Your task to perform on an android device: toggle sleep mode Image 0: 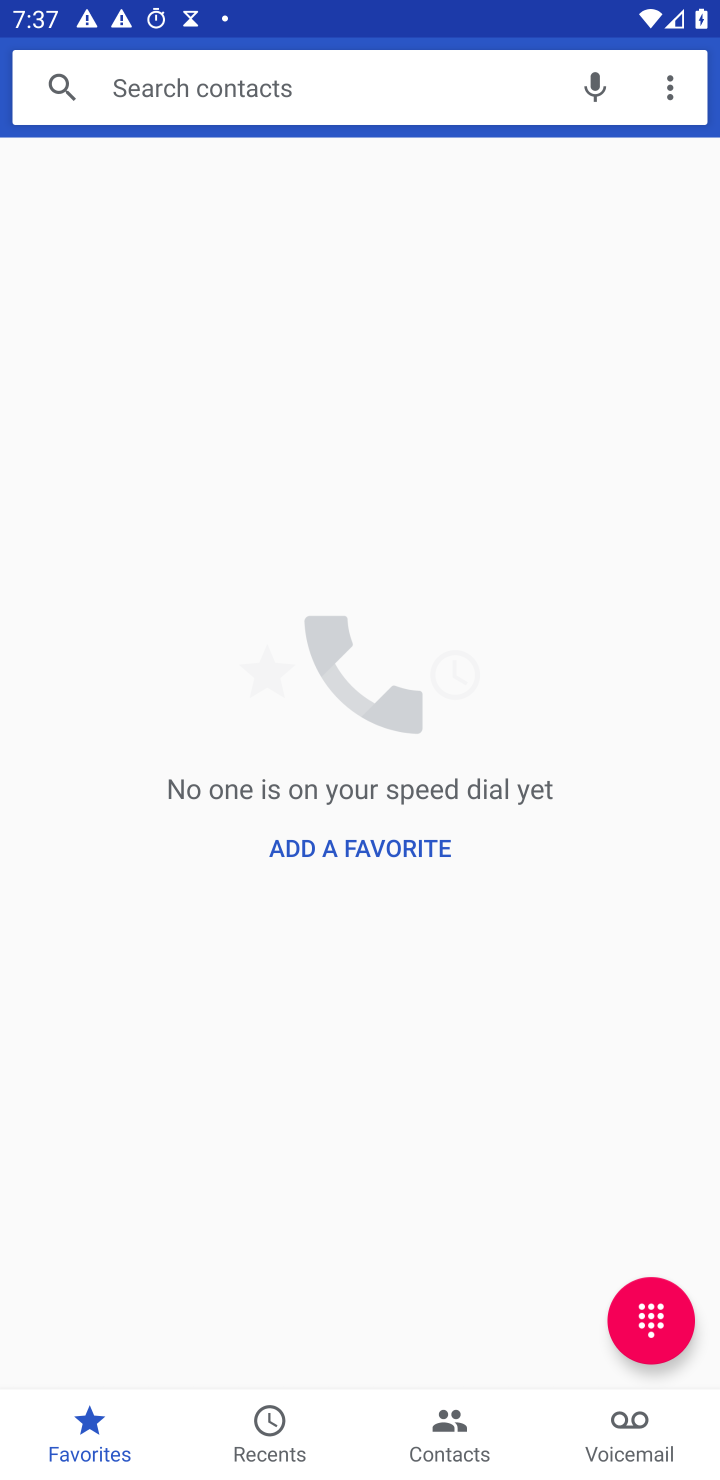
Step 0: press home button
Your task to perform on an android device: toggle sleep mode Image 1: 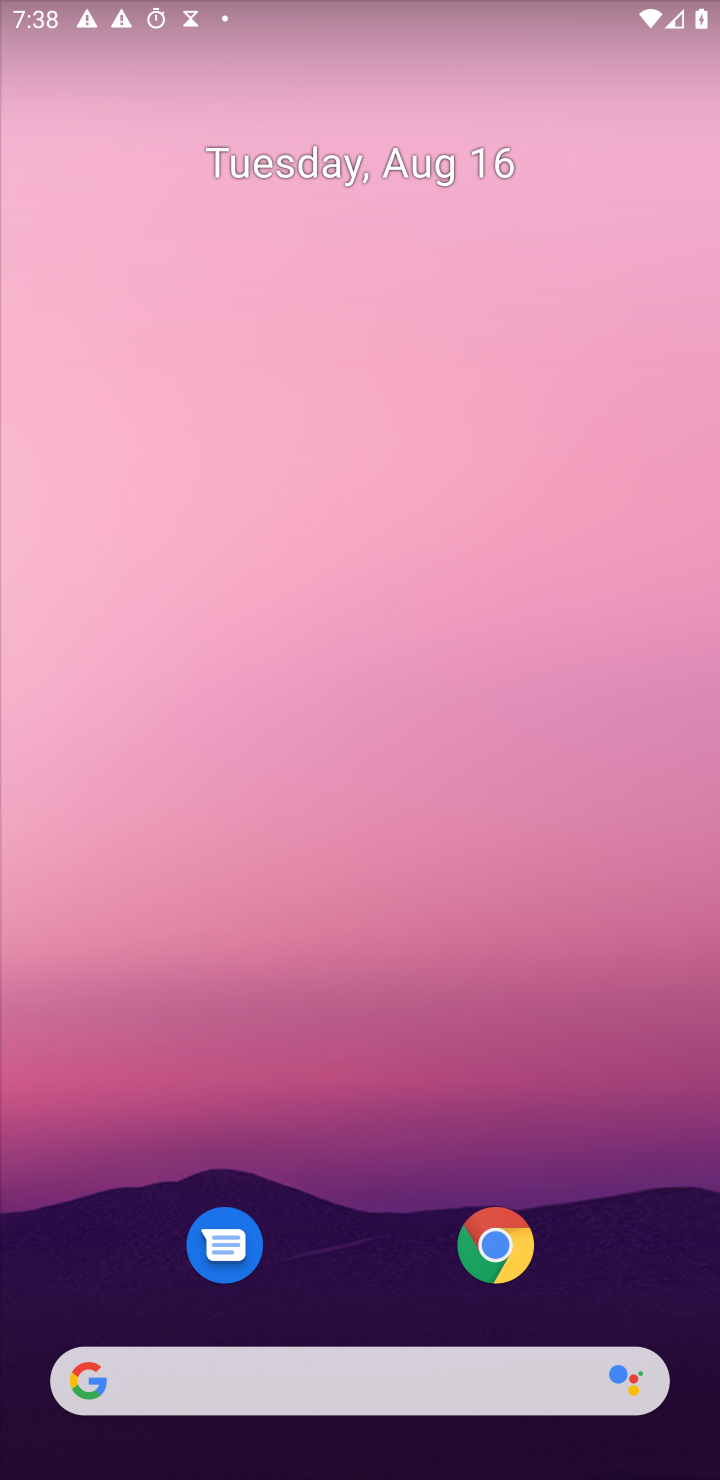
Step 1: drag from (388, 1168) to (363, 0)
Your task to perform on an android device: toggle sleep mode Image 2: 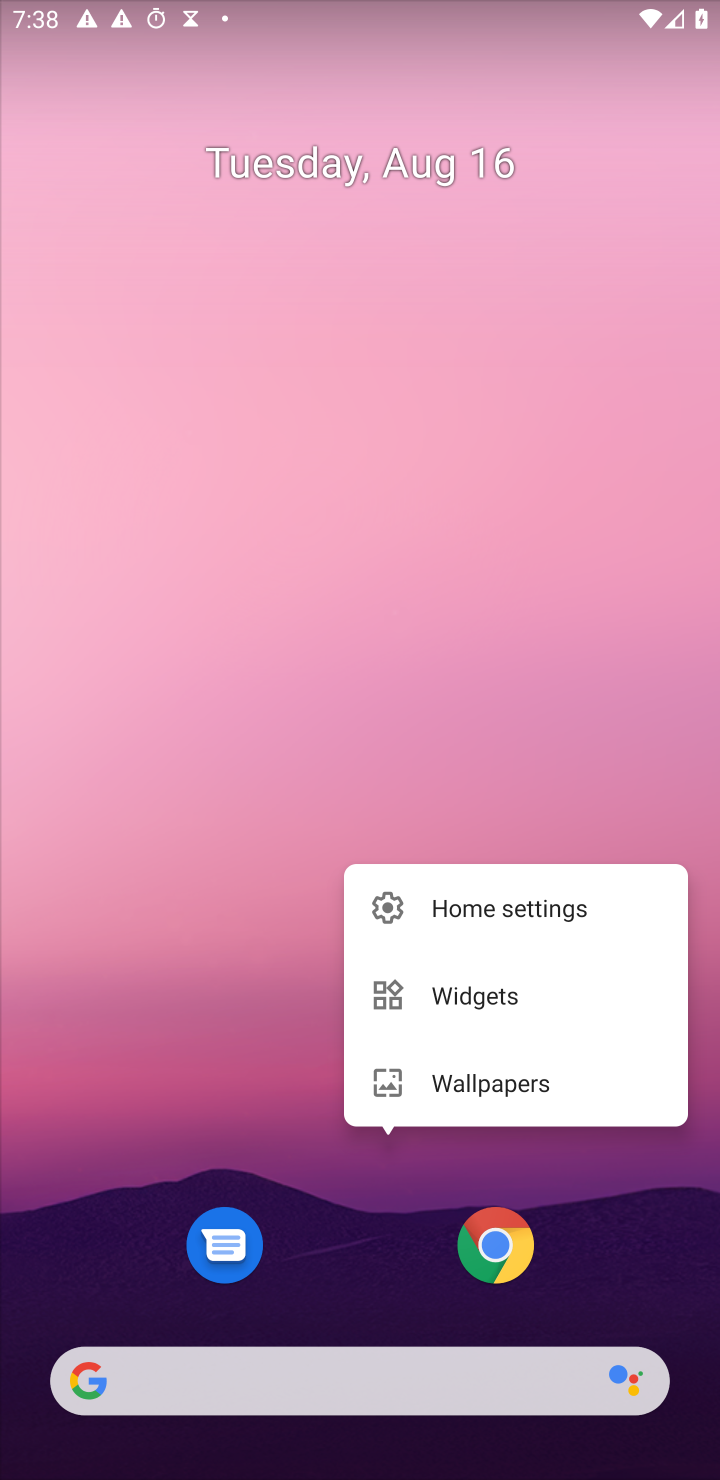
Step 2: press home button
Your task to perform on an android device: toggle sleep mode Image 3: 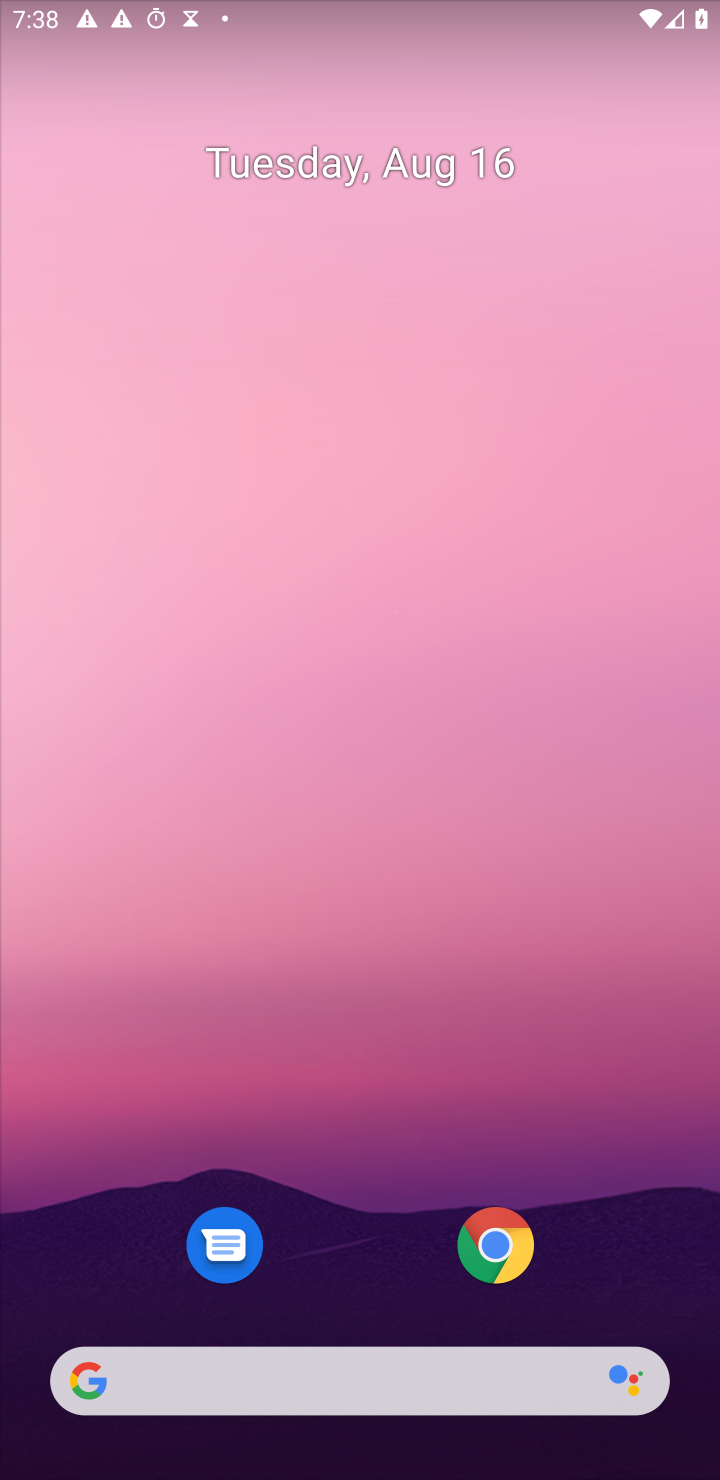
Step 3: drag from (386, 974) to (409, 220)
Your task to perform on an android device: toggle sleep mode Image 4: 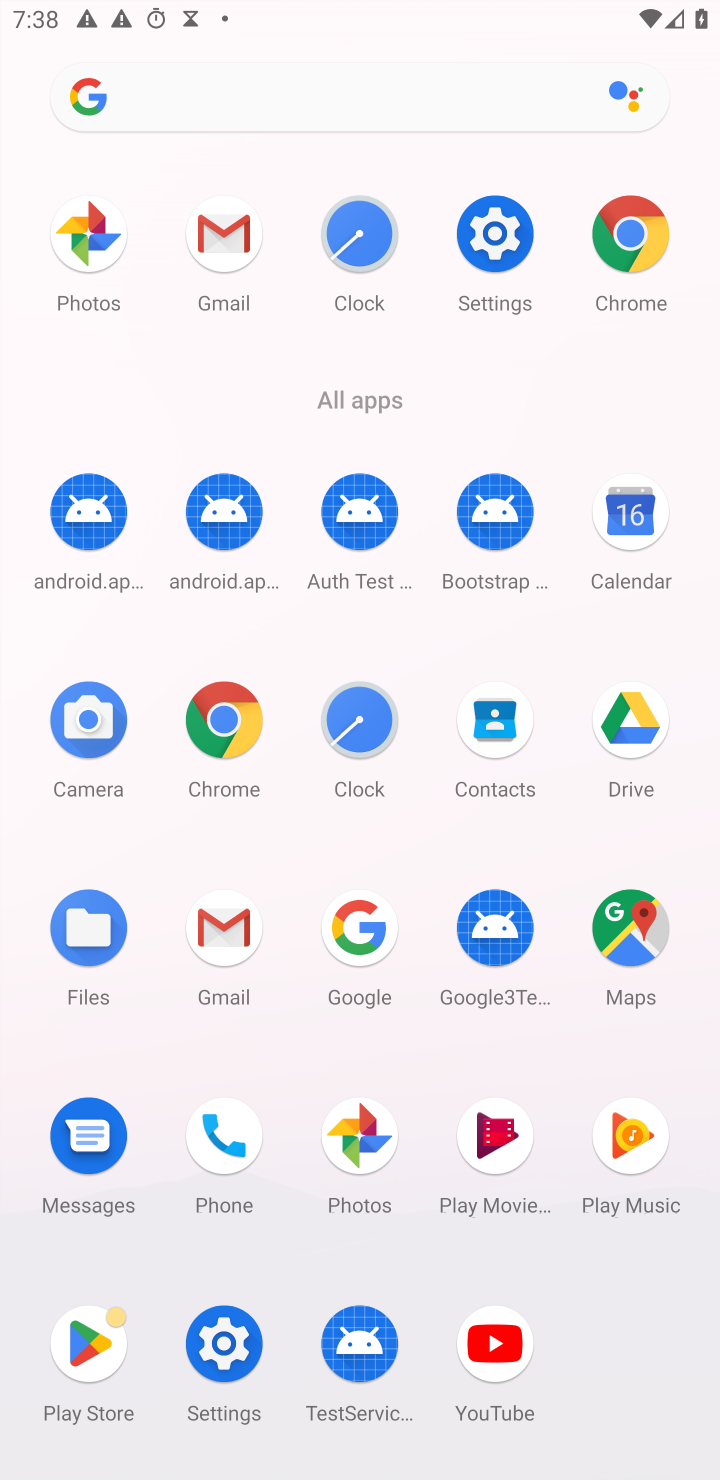
Step 4: click (476, 249)
Your task to perform on an android device: toggle sleep mode Image 5: 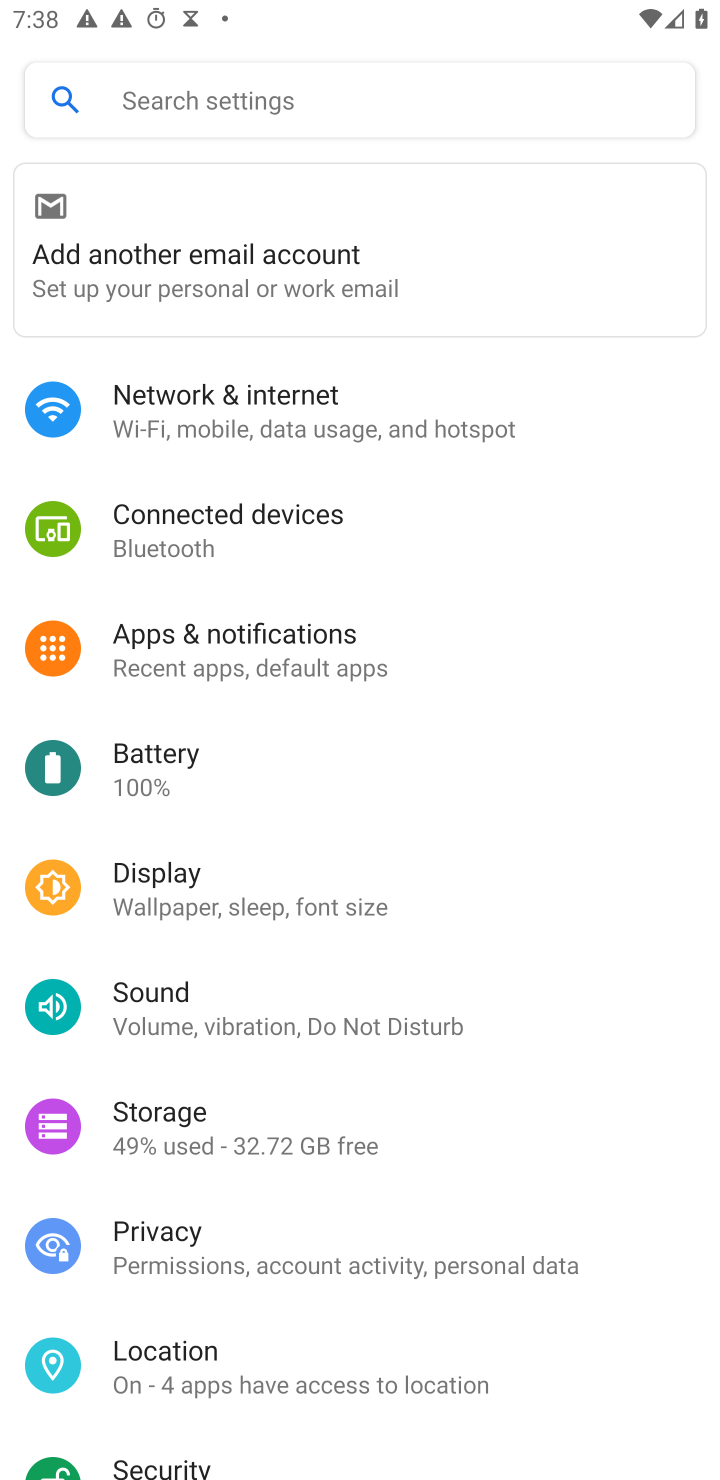
Step 5: click (160, 882)
Your task to perform on an android device: toggle sleep mode Image 6: 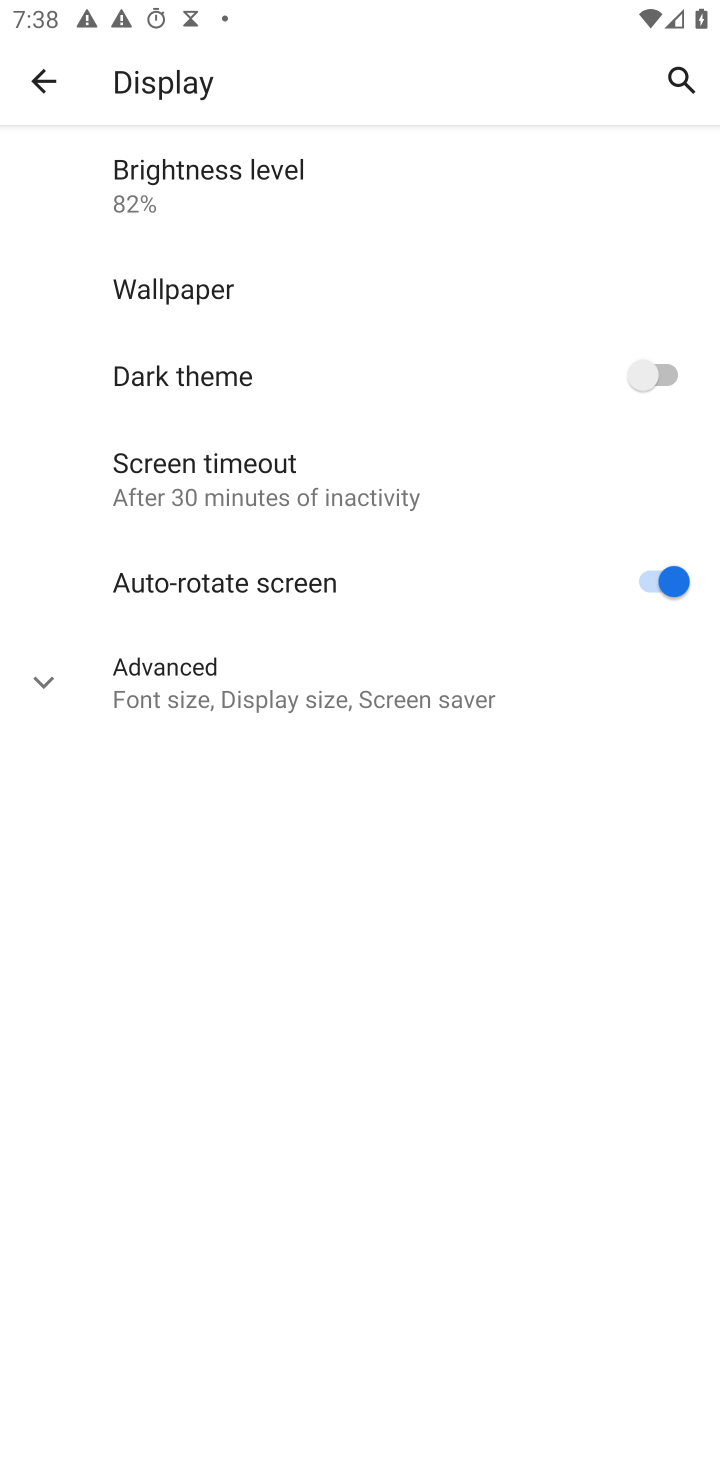
Step 6: task complete